Your task to perform on an android device: What's the weather going to be tomorrow? Image 0: 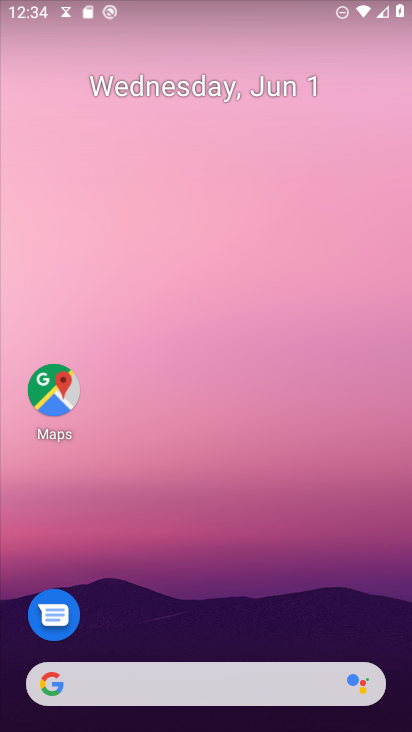
Step 0: drag from (249, 655) to (284, 136)
Your task to perform on an android device: What's the weather going to be tomorrow? Image 1: 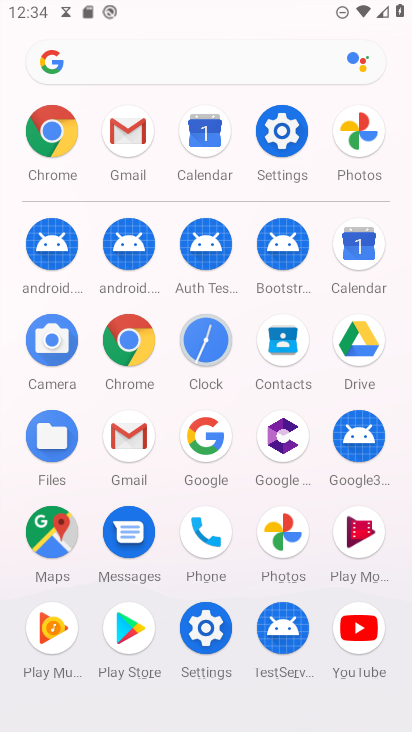
Step 1: click (147, 348)
Your task to perform on an android device: What's the weather going to be tomorrow? Image 2: 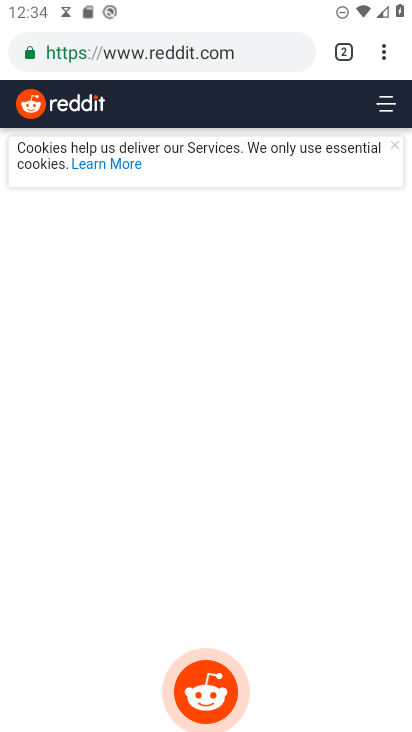
Step 2: click (217, 45)
Your task to perform on an android device: What's the weather going to be tomorrow? Image 3: 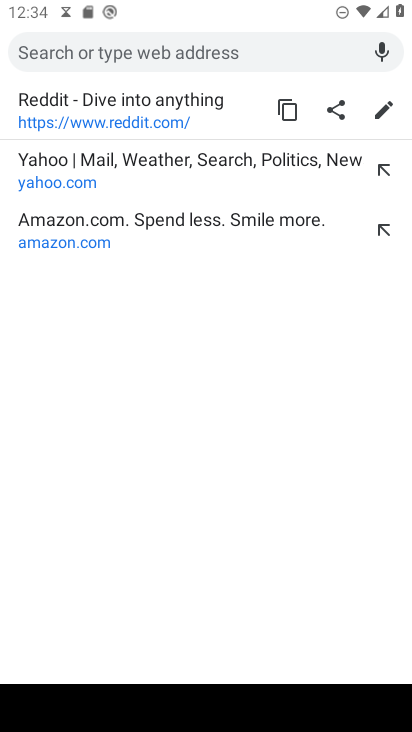
Step 3: type "weather going to be tomorrow"
Your task to perform on an android device: What's the weather going to be tomorrow? Image 4: 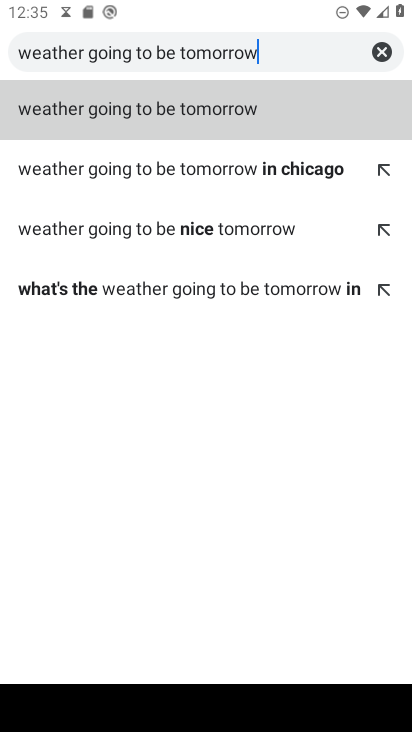
Step 4: click (227, 108)
Your task to perform on an android device: What's the weather going to be tomorrow? Image 5: 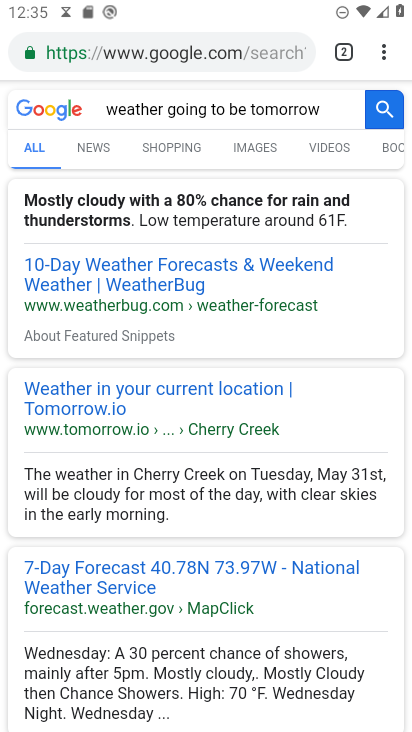
Step 5: click (168, 278)
Your task to perform on an android device: What's the weather going to be tomorrow? Image 6: 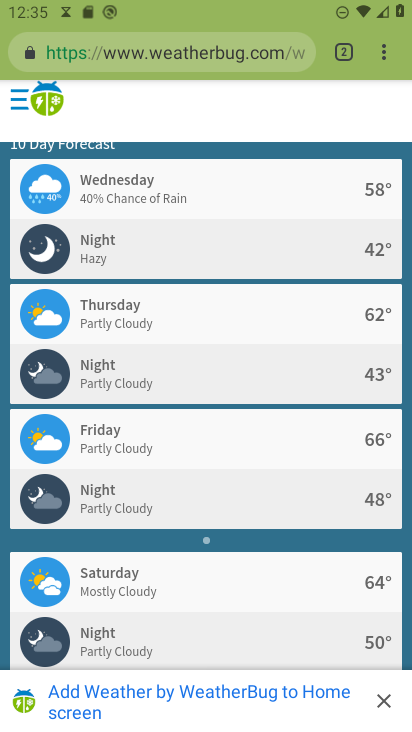
Step 6: task complete